Your task to perform on an android device: uninstall "McDonald's" Image 0: 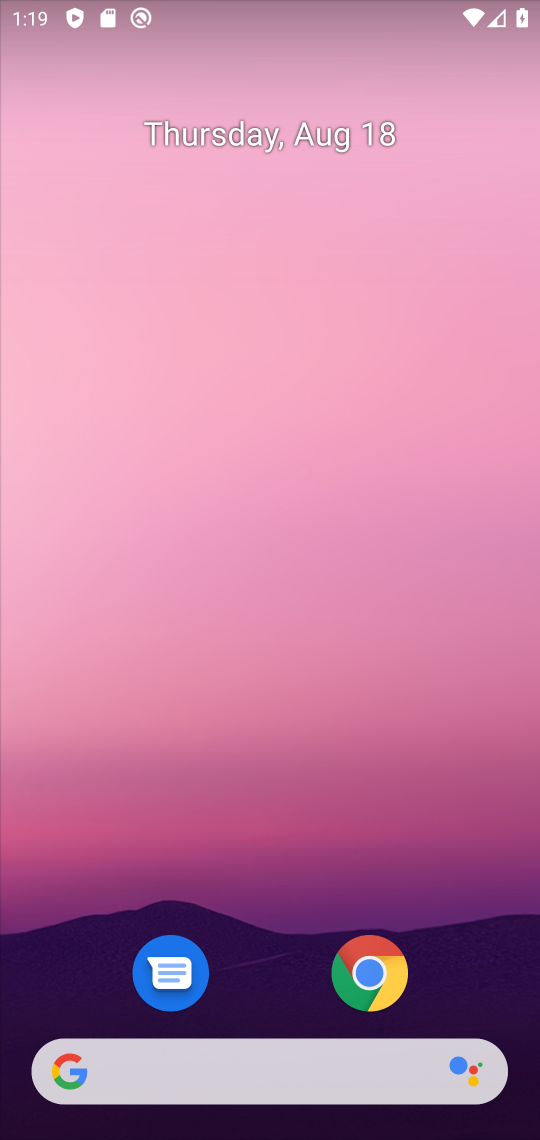
Step 0: drag from (254, 1018) to (256, 2)
Your task to perform on an android device: uninstall "McDonald's" Image 1: 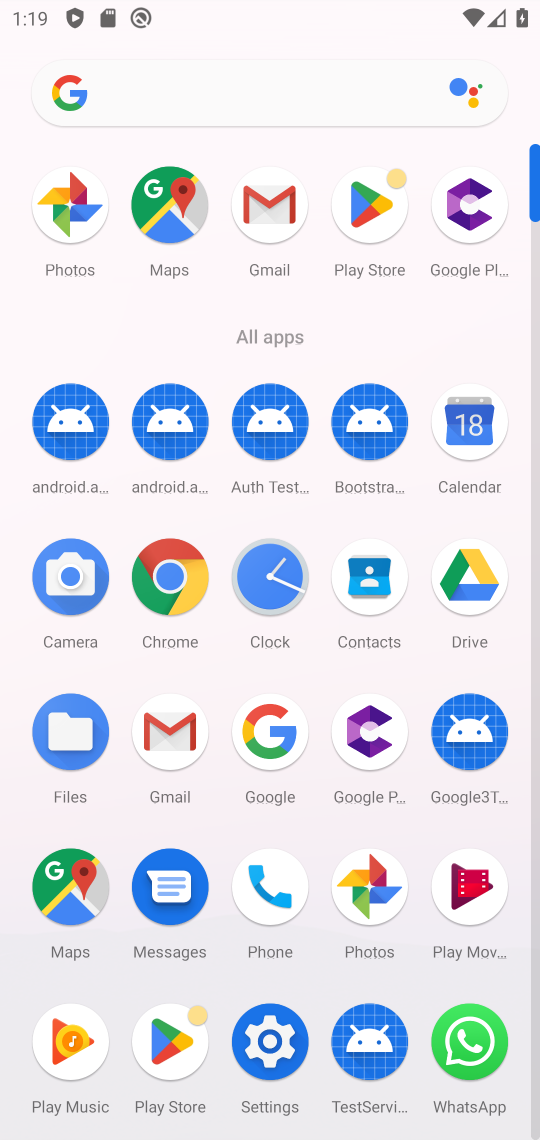
Step 1: click (358, 195)
Your task to perform on an android device: uninstall "McDonald's" Image 2: 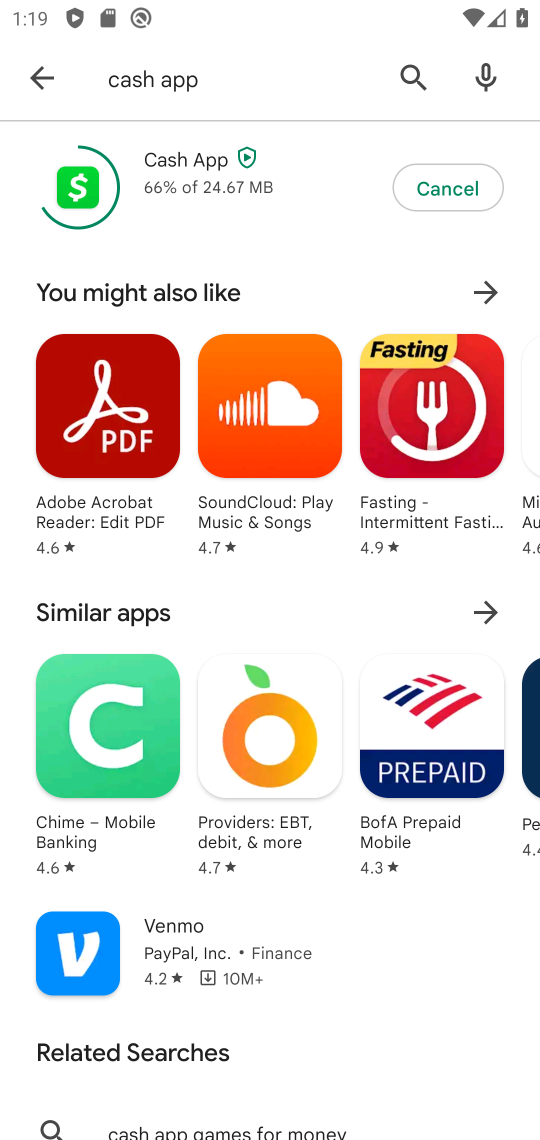
Step 2: click (391, 91)
Your task to perform on an android device: uninstall "McDonald's" Image 3: 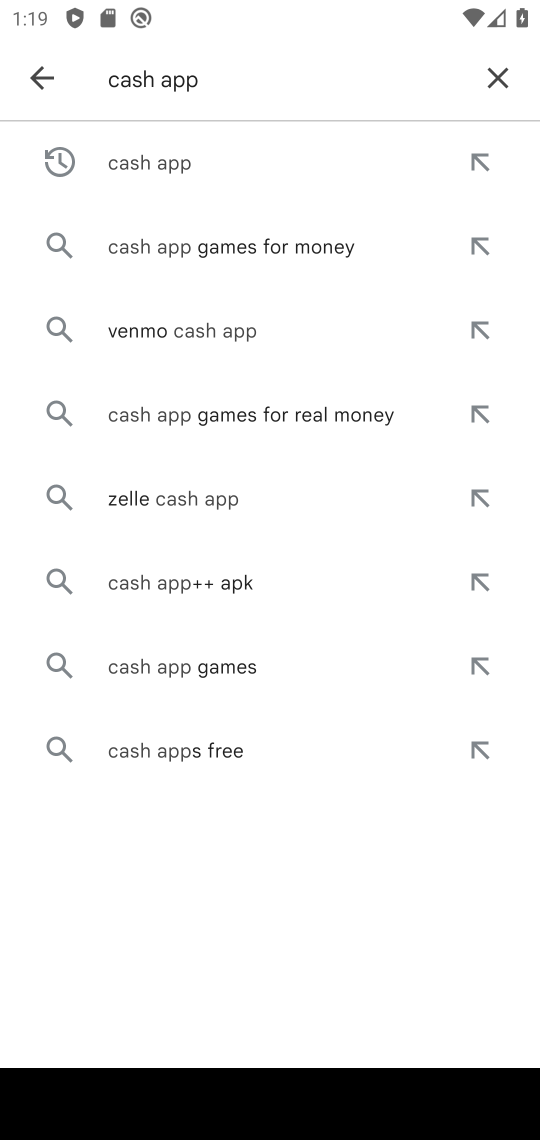
Step 3: click (509, 84)
Your task to perform on an android device: uninstall "McDonald's" Image 4: 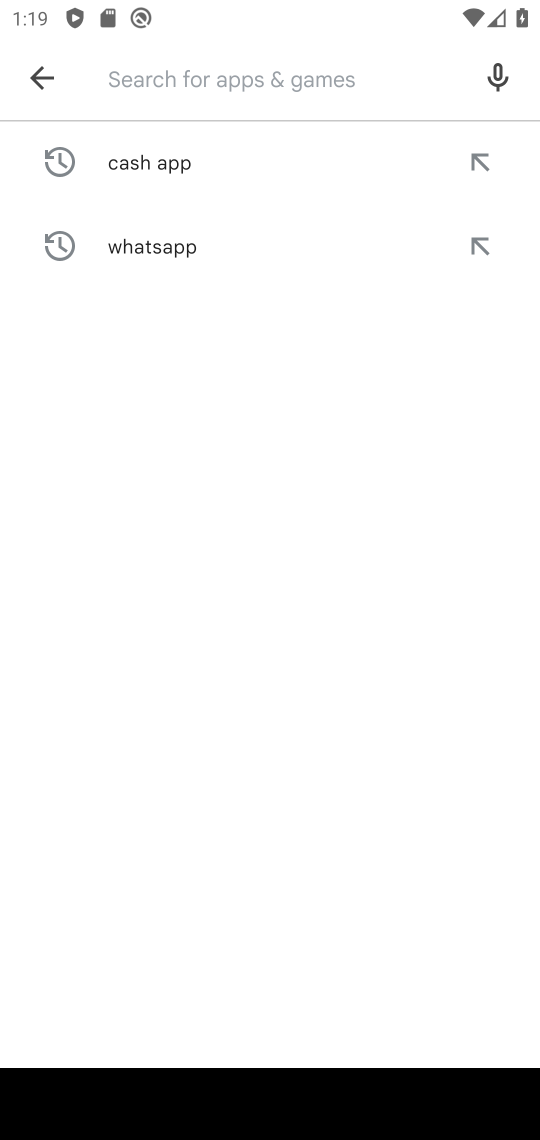
Step 4: type "McDoland"
Your task to perform on an android device: uninstall "McDonald's" Image 5: 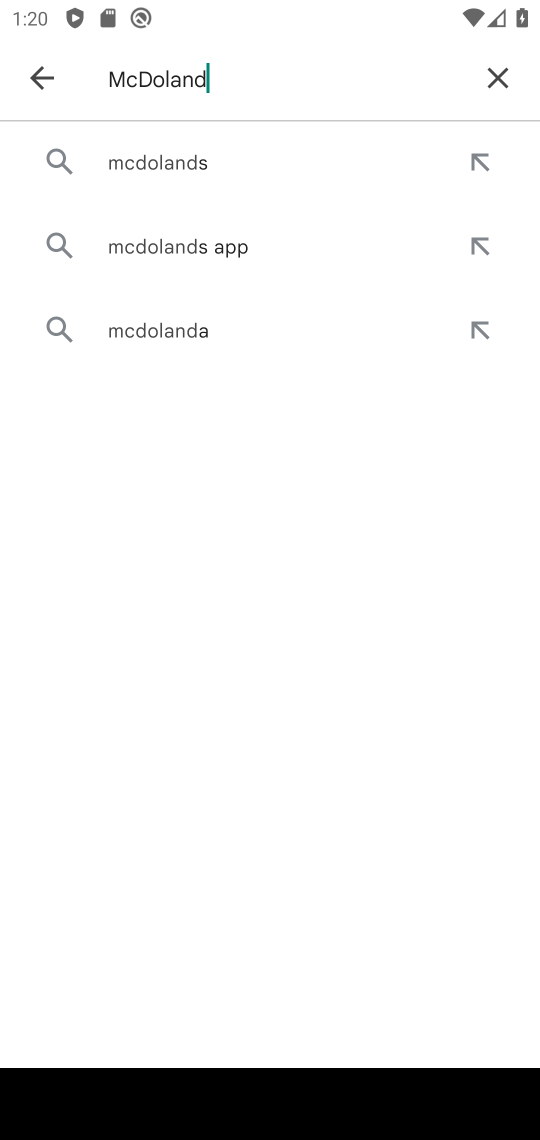
Step 5: click (250, 172)
Your task to perform on an android device: uninstall "McDonald's" Image 6: 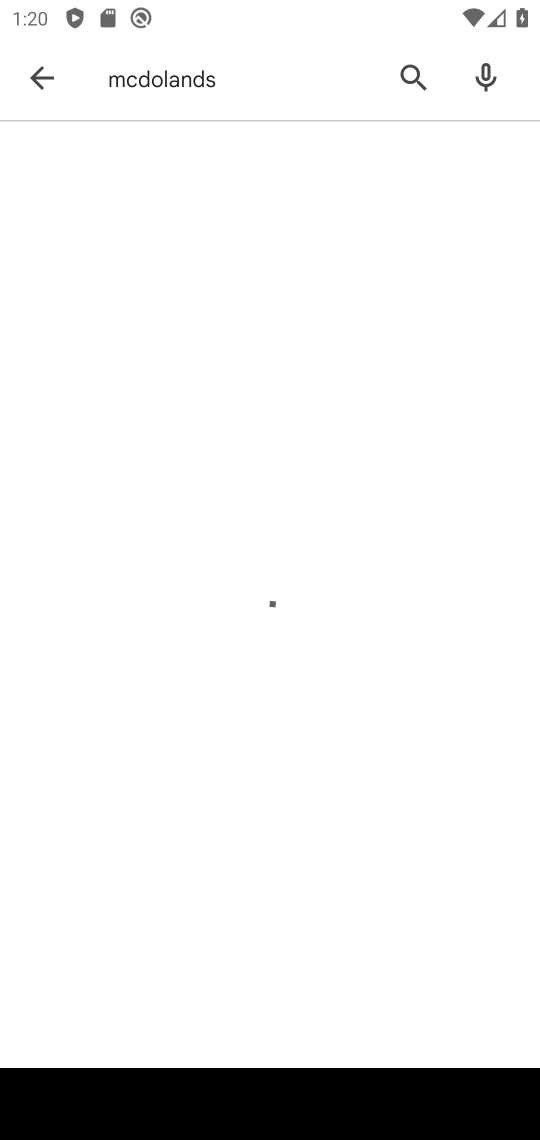
Step 6: click (256, 172)
Your task to perform on an android device: uninstall "McDonald's" Image 7: 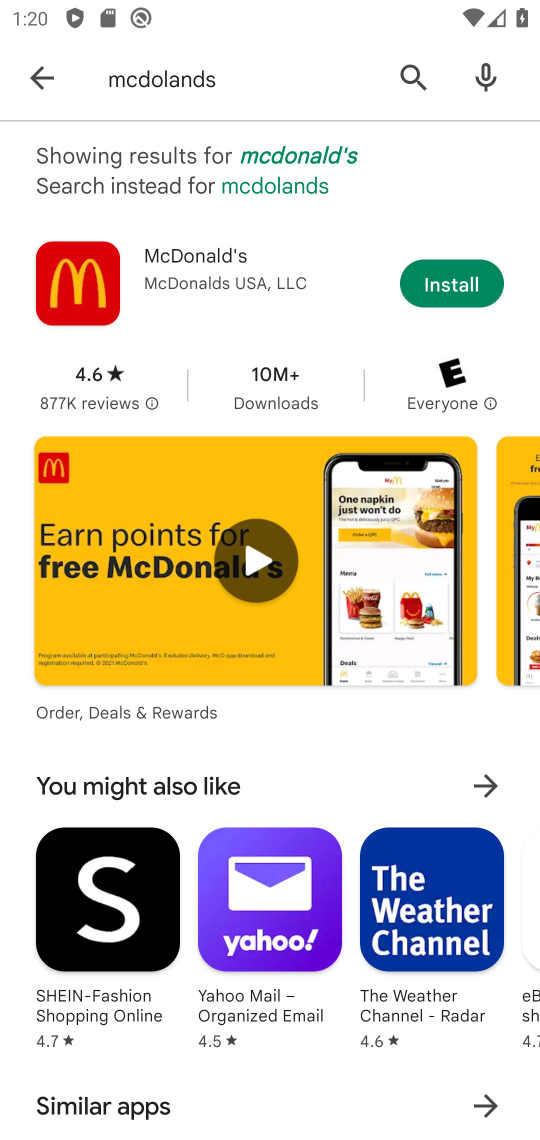
Step 7: click (430, 302)
Your task to perform on an android device: uninstall "McDonald's" Image 8: 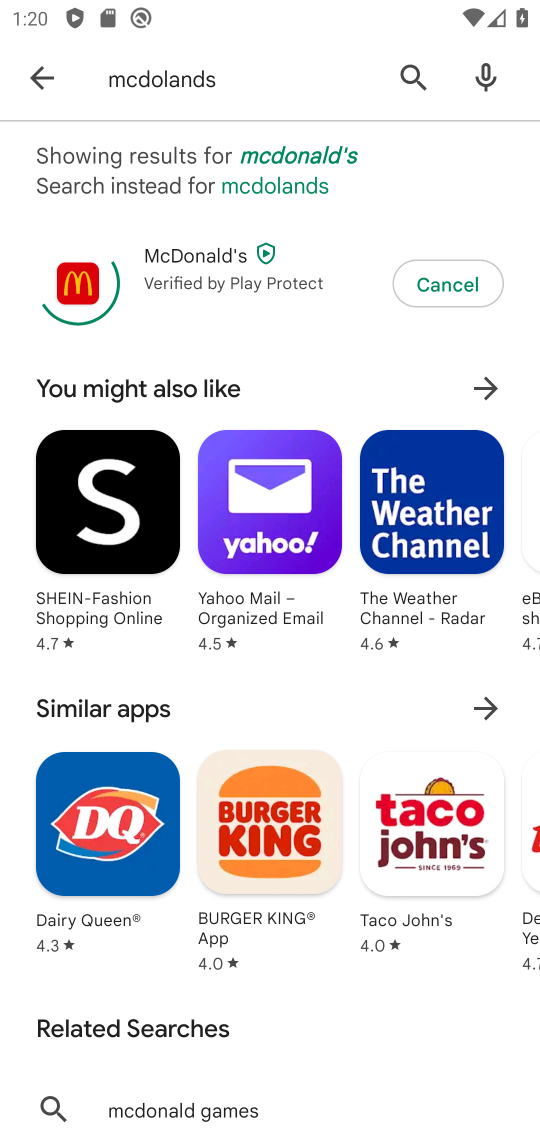
Step 8: task complete